Your task to perform on an android device: Go to Amazon Image 0: 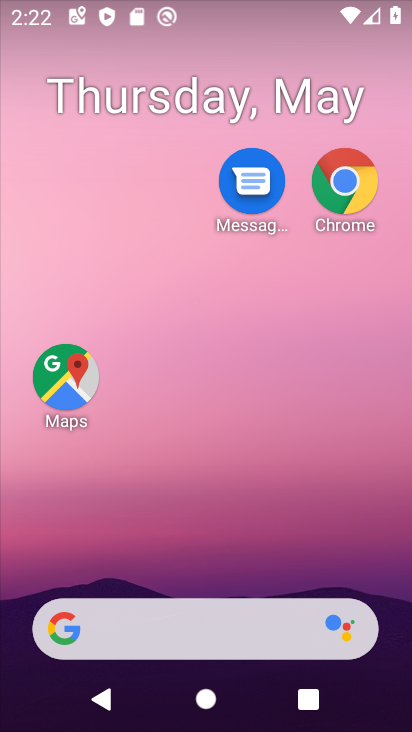
Step 0: drag from (312, 637) to (340, 126)
Your task to perform on an android device: Go to Amazon Image 1: 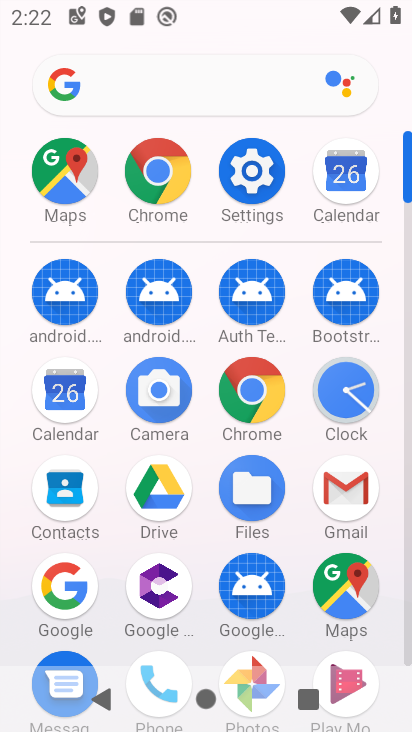
Step 1: click (258, 393)
Your task to perform on an android device: Go to Amazon Image 2: 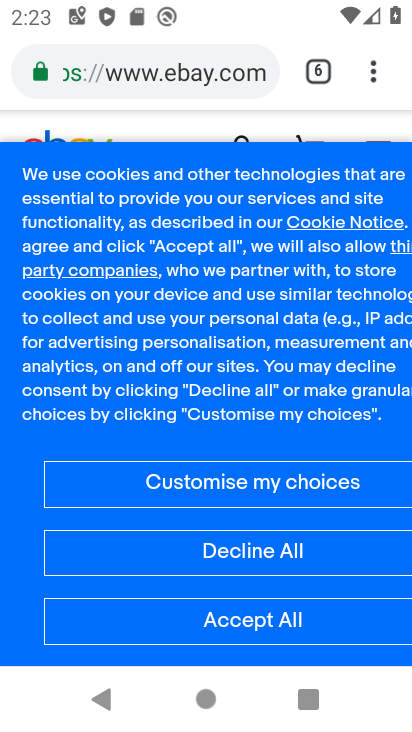
Step 2: click (375, 65)
Your task to perform on an android device: Go to Amazon Image 3: 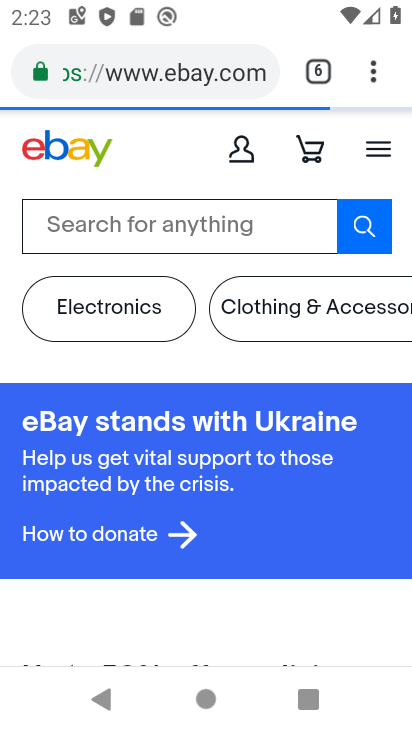
Step 3: drag from (378, 71) to (221, 146)
Your task to perform on an android device: Go to Amazon Image 4: 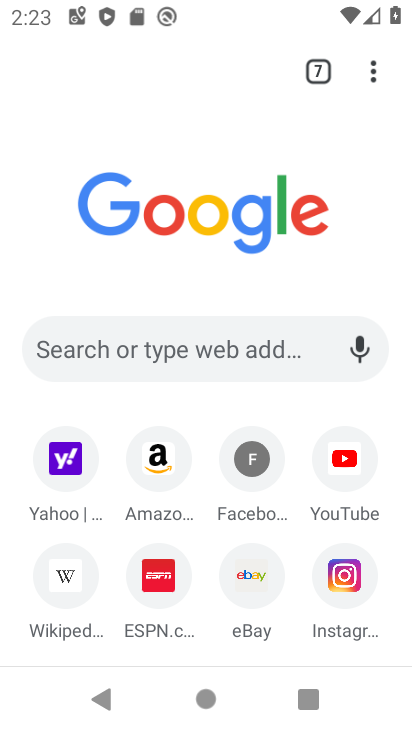
Step 4: click (162, 476)
Your task to perform on an android device: Go to Amazon Image 5: 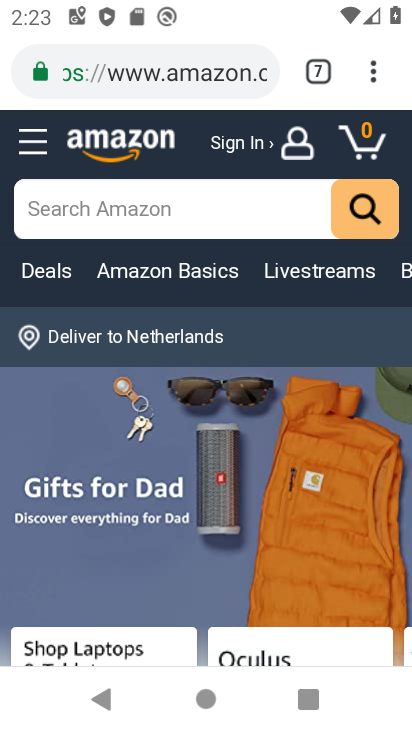
Step 5: task complete